Your task to perform on an android device: Do I have any events tomorrow? Image 0: 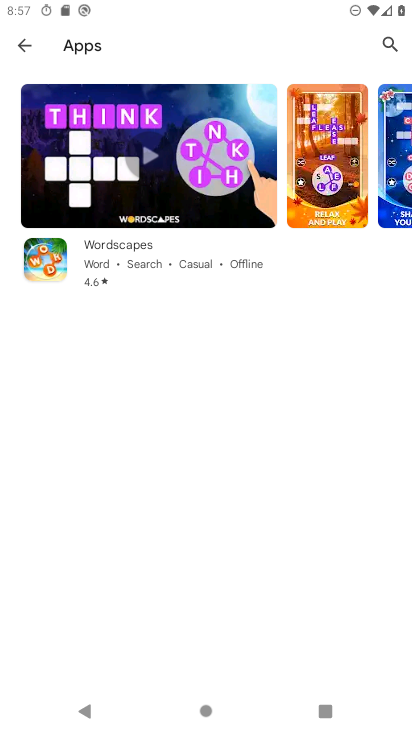
Step 0: press home button
Your task to perform on an android device: Do I have any events tomorrow? Image 1: 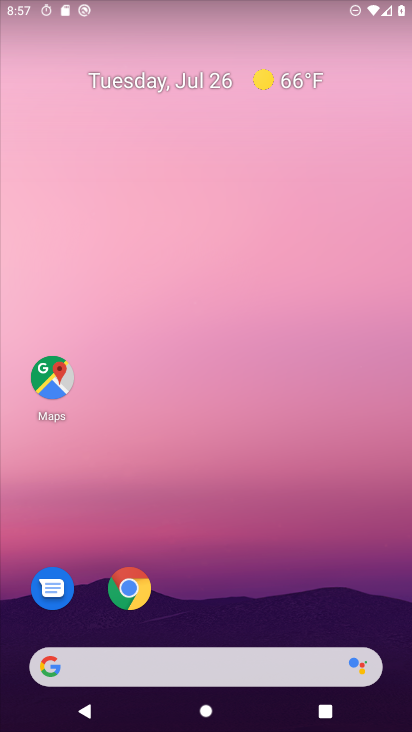
Step 1: drag from (244, 726) to (261, 194)
Your task to perform on an android device: Do I have any events tomorrow? Image 2: 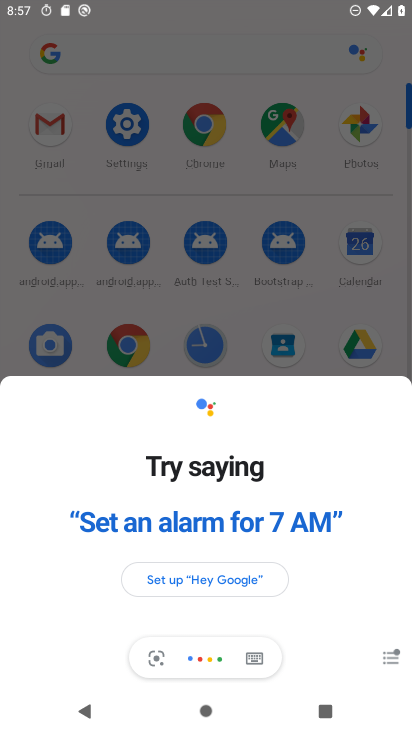
Step 2: click (362, 254)
Your task to perform on an android device: Do I have any events tomorrow? Image 3: 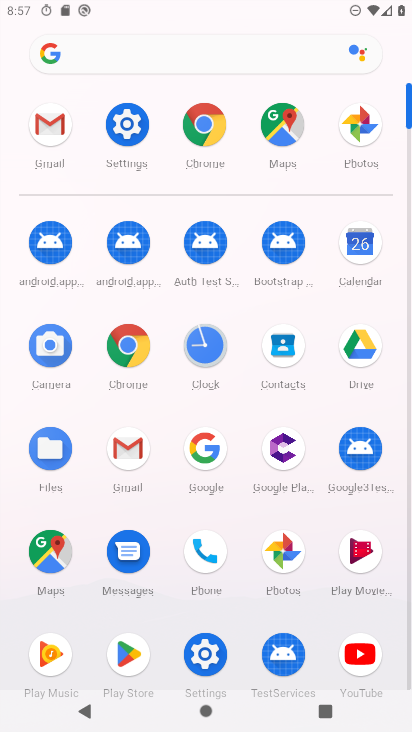
Step 3: click (360, 237)
Your task to perform on an android device: Do I have any events tomorrow? Image 4: 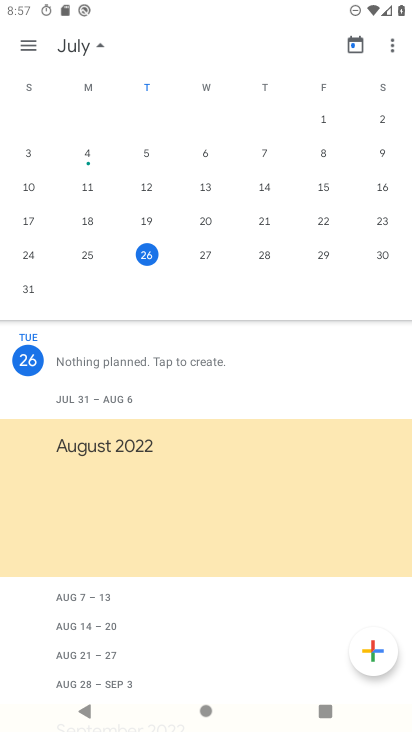
Step 4: click (205, 252)
Your task to perform on an android device: Do I have any events tomorrow? Image 5: 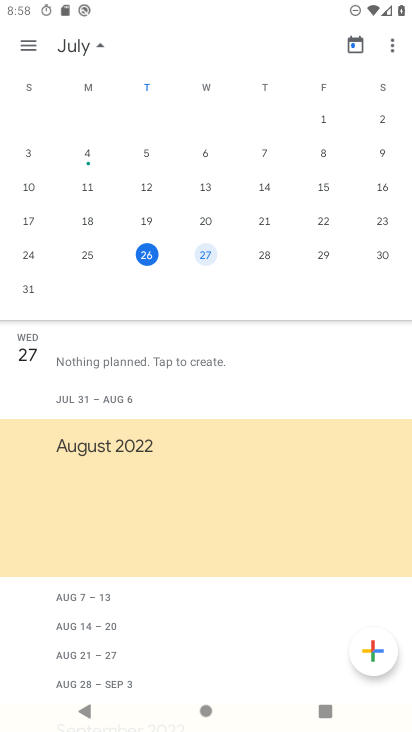
Step 5: click (26, 45)
Your task to perform on an android device: Do I have any events tomorrow? Image 6: 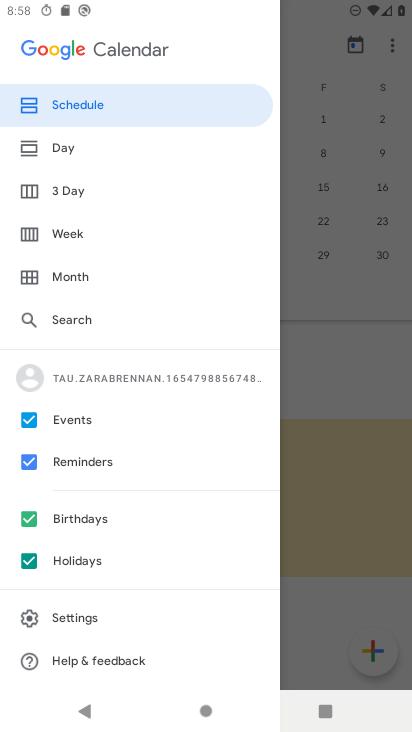
Step 6: click (29, 553)
Your task to perform on an android device: Do I have any events tomorrow? Image 7: 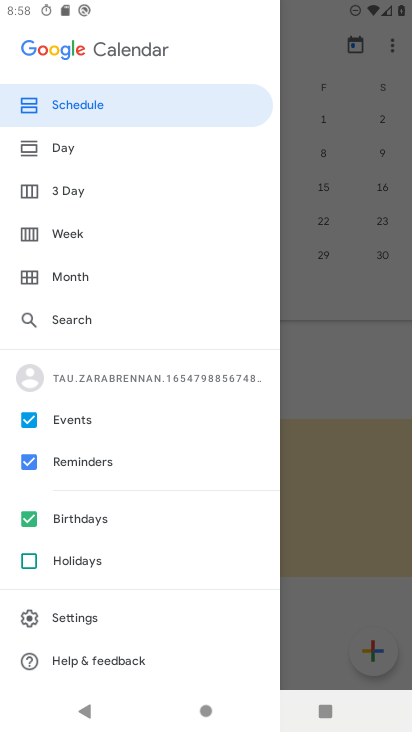
Step 7: click (35, 513)
Your task to perform on an android device: Do I have any events tomorrow? Image 8: 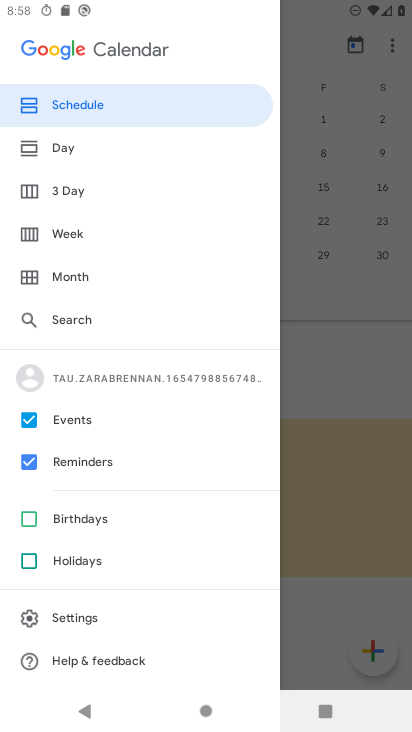
Step 8: click (22, 455)
Your task to perform on an android device: Do I have any events tomorrow? Image 9: 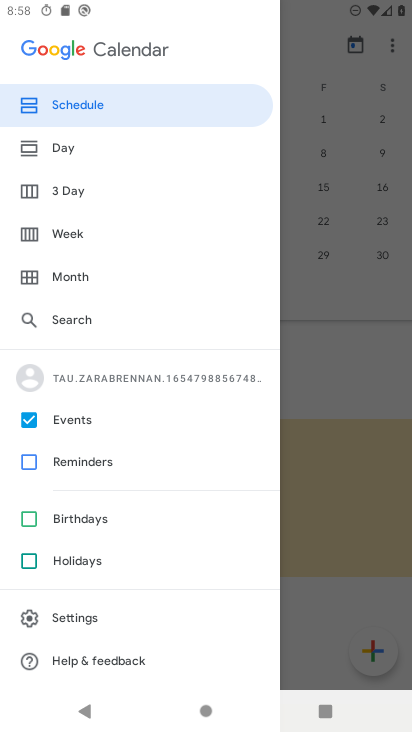
Step 9: click (316, 144)
Your task to perform on an android device: Do I have any events tomorrow? Image 10: 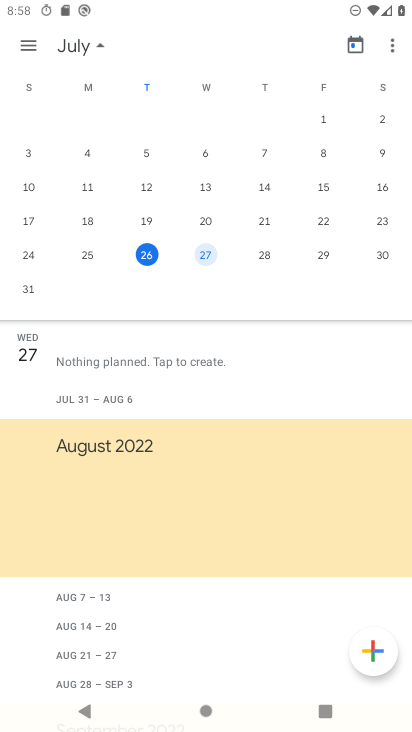
Step 10: task complete